Your task to perform on an android device: Go to Amazon Image 0: 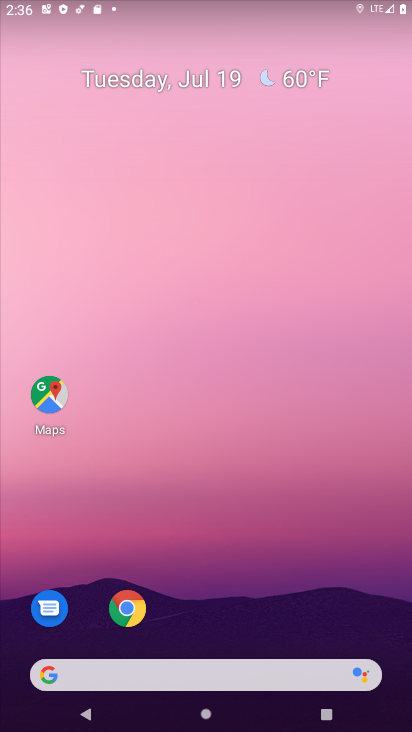
Step 0: drag from (288, 552) to (201, 3)
Your task to perform on an android device: Go to Amazon Image 1: 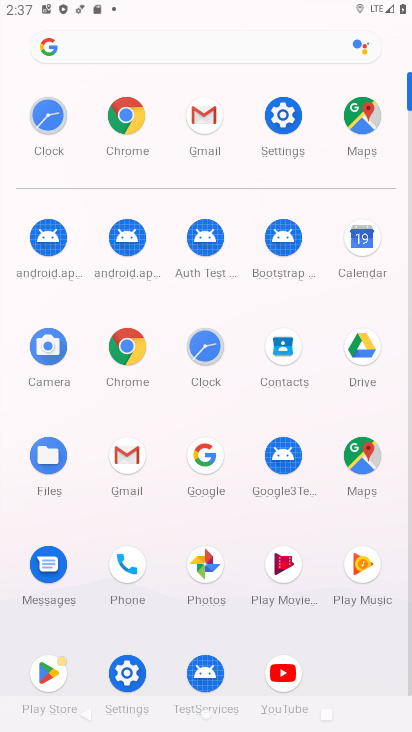
Step 1: click (122, 124)
Your task to perform on an android device: Go to Amazon Image 2: 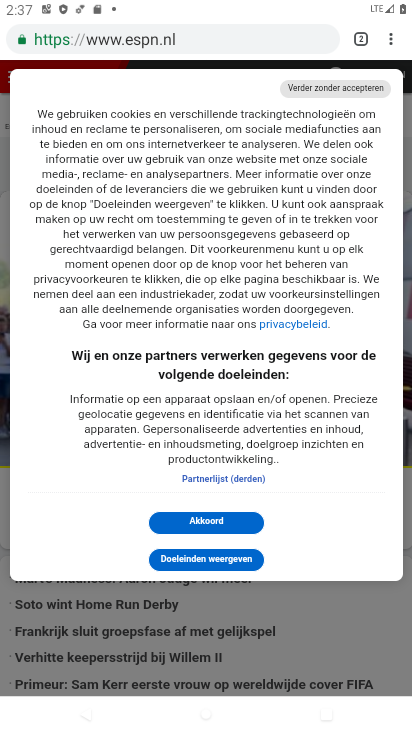
Step 2: press back button
Your task to perform on an android device: Go to Amazon Image 3: 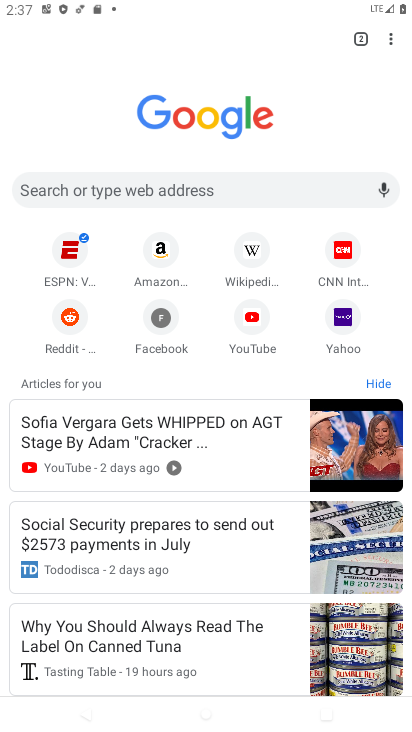
Step 3: click (146, 265)
Your task to perform on an android device: Go to Amazon Image 4: 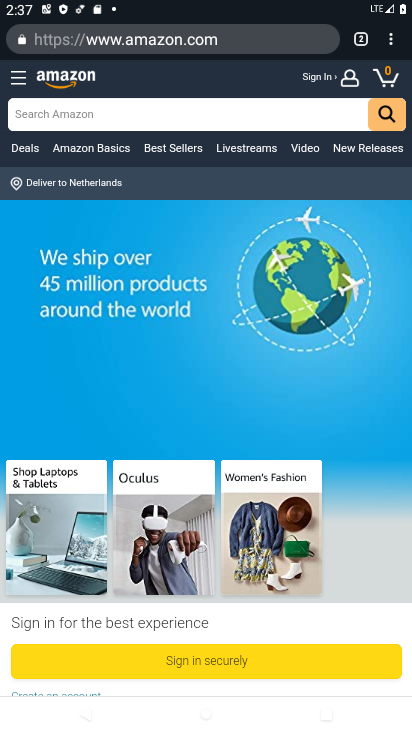
Step 4: task complete